Your task to perform on an android device: What is the capital of Switzerland? Image 0: 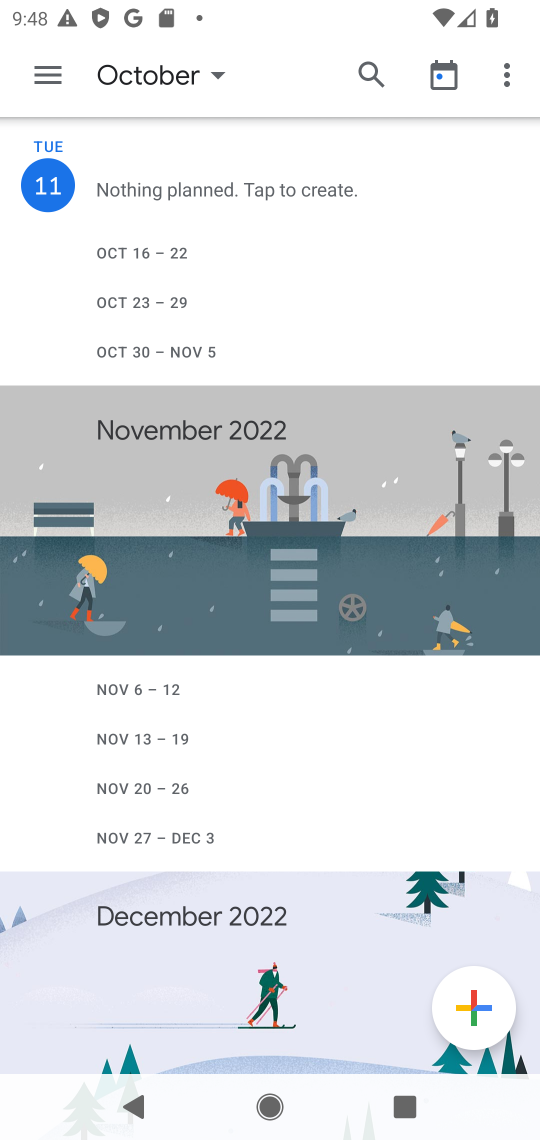
Step 0: press home button
Your task to perform on an android device: What is the capital of Switzerland? Image 1: 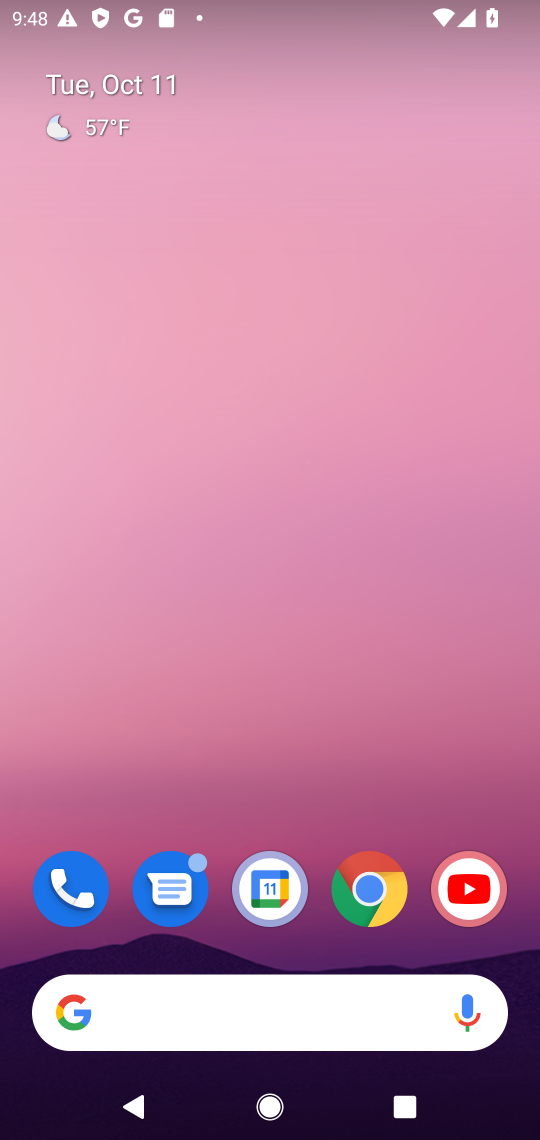
Step 1: click (257, 1012)
Your task to perform on an android device: What is the capital of Switzerland? Image 2: 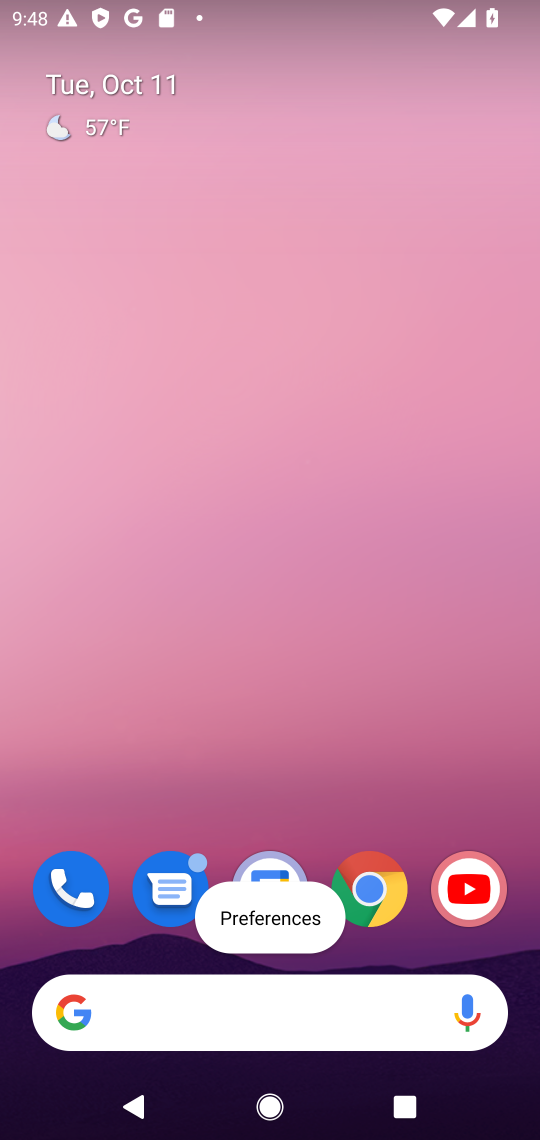
Step 2: click (246, 1022)
Your task to perform on an android device: What is the capital of Switzerland? Image 3: 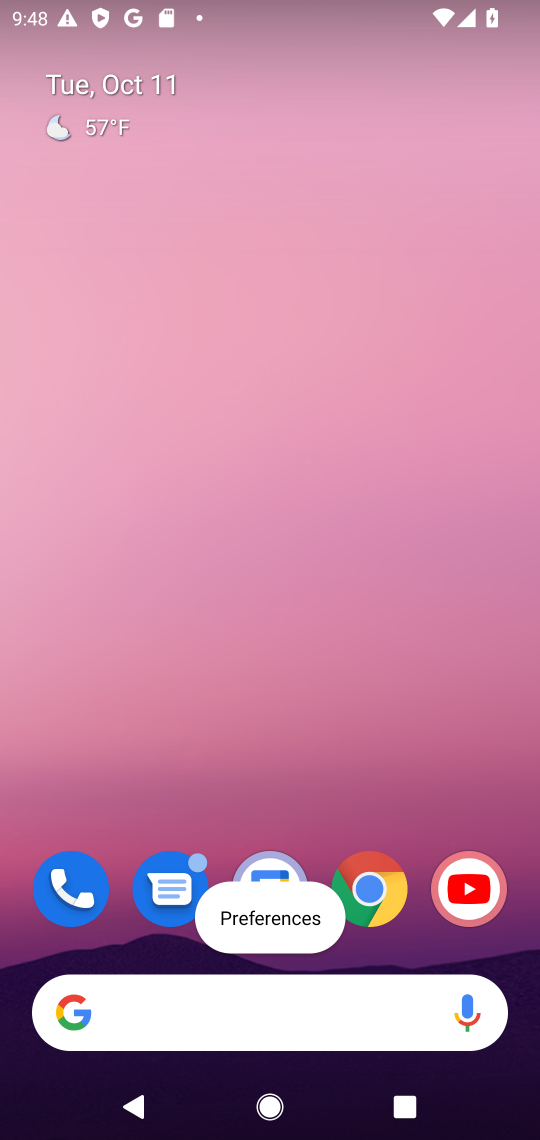
Step 3: click (246, 1002)
Your task to perform on an android device: What is the capital of Switzerland? Image 4: 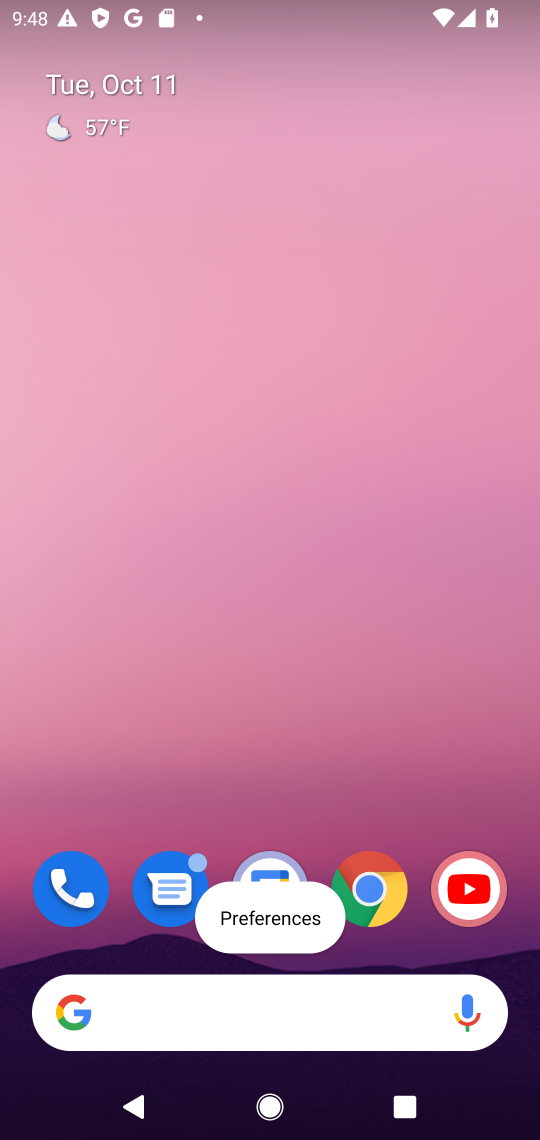
Step 4: click (142, 1015)
Your task to perform on an android device: What is the capital of Switzerland? Image 5: 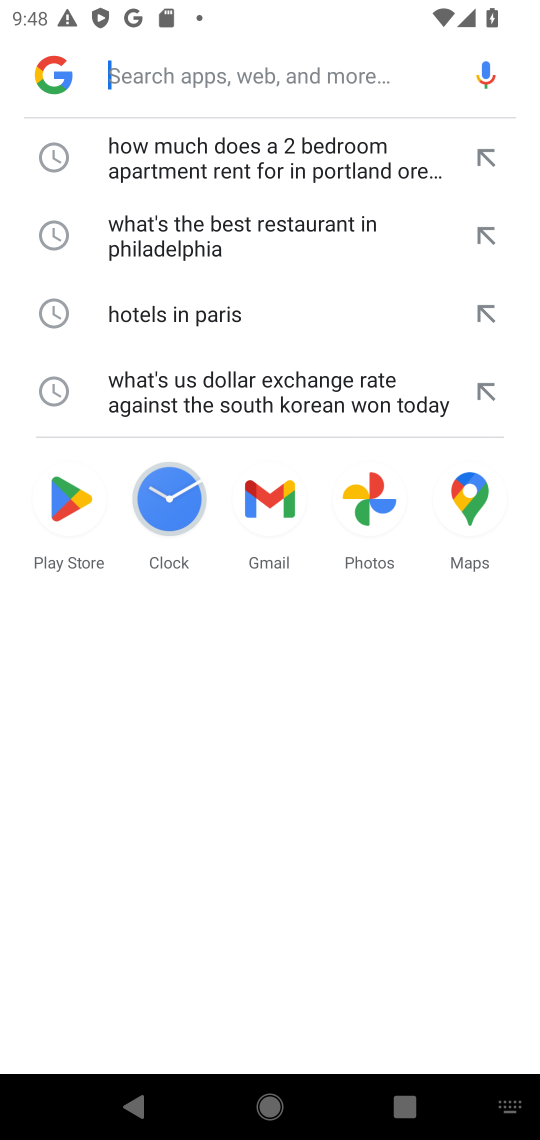
Step 5: click (192, 72)
Your task to perform on an android device: What is the capital of Switzerland? Image 6: 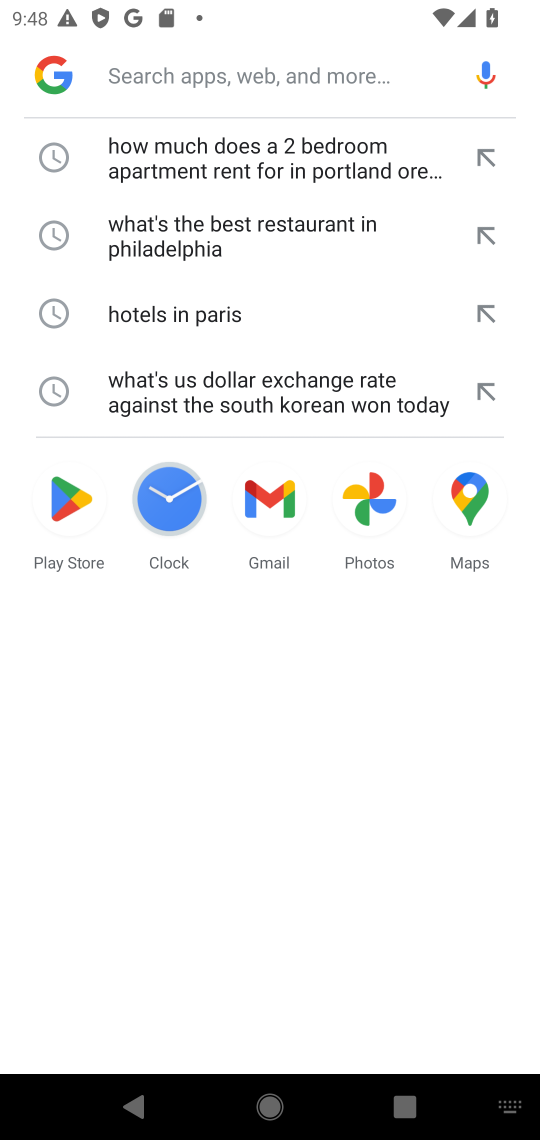
Step 6: type "capital of Switzerland?"
Your task to perform on an android device: What is the capital of Switzerland? Image 7: 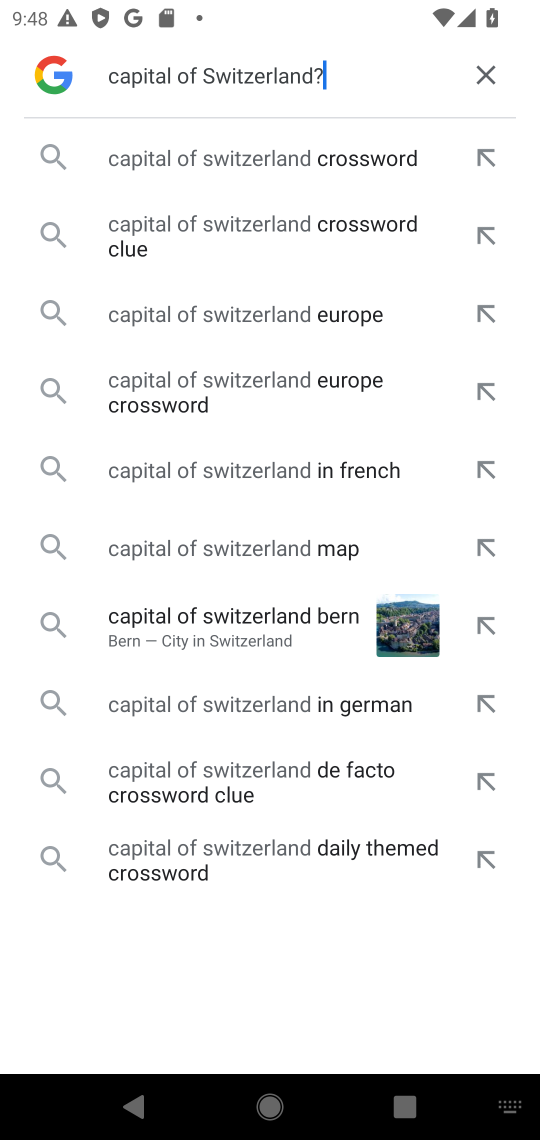
Step 7: click (207, 131)
Your task to perform on an android device: What is the capital of Switzerland? Image 8: 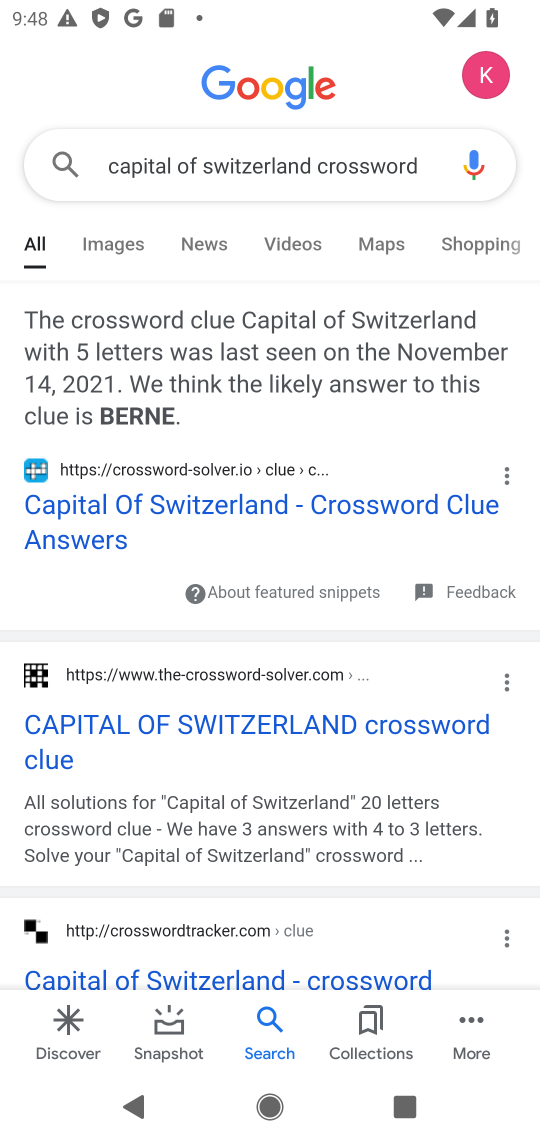
Step 8: task complete